Your task to perform on an android device: What is the recent news? Image 0: 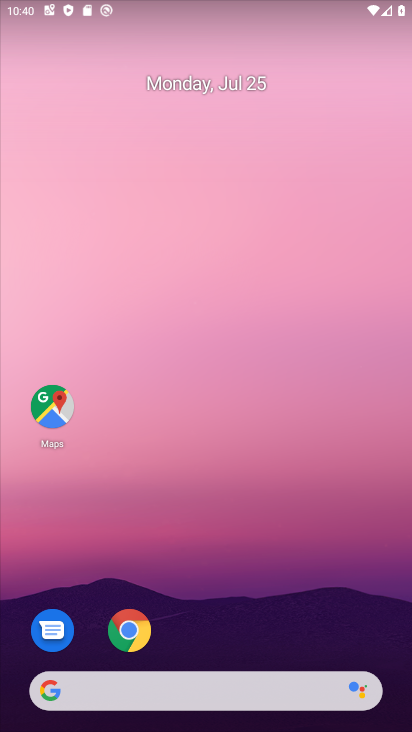
Step 0: drag from (3, 245) to (407, 306)
Your task to perform on an android device: What is the recent news? Image 1: 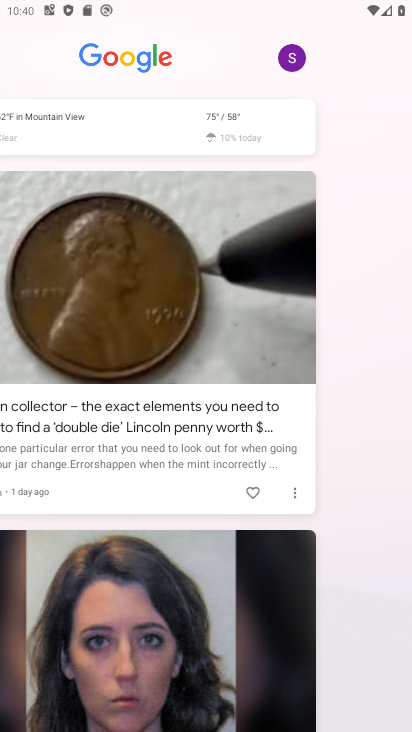
Step 1: task complete